Your task to perform on an android device: delete a single message in the gmail app Image 0: 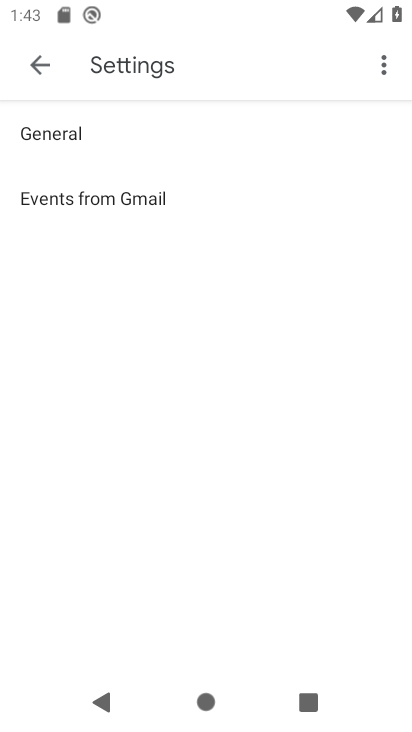
Step 0: press home button
Your task to perform on an android device: delete a single message in the gmail app Image 1: 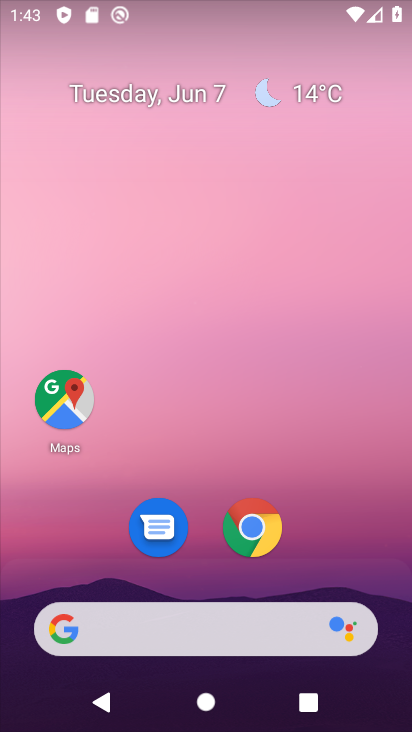
Step 1: drag from (368, 575) to (301, 268)
Your task to perform on an android device: delete a single message in the gmail app Image 2: 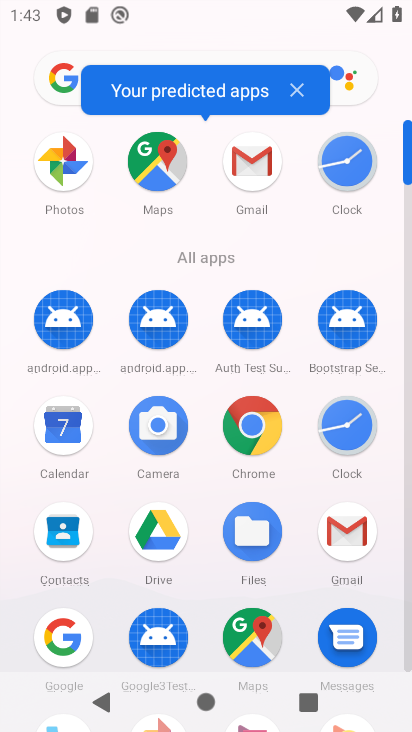
Step 2: click (257, 164)
Your task to perform on an android device: delete a single message in the gmail app Image 3: 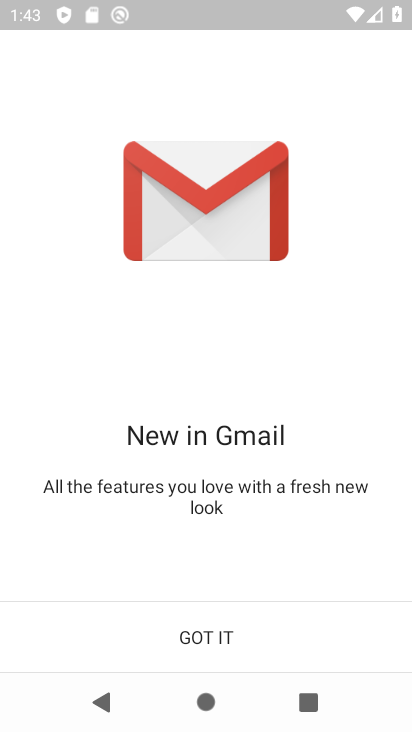
Step 3: click (202, 645)
Your task to perform on an android device: delete a single message in the gmail app Image 4: 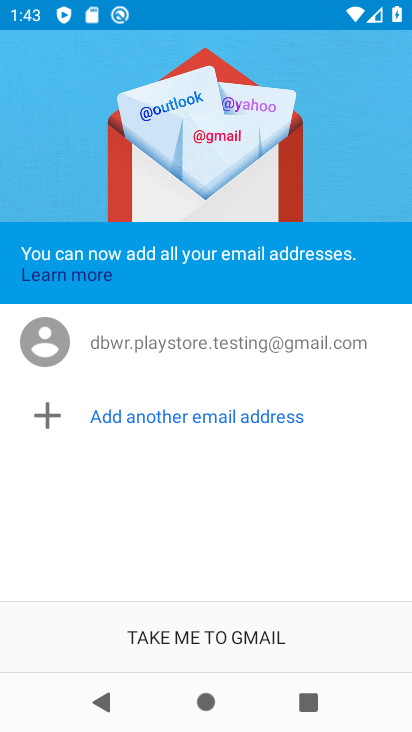
Step 4: click (202, 645)
Your task to perform on an android device: delete a single message in the gmail app Image 5: 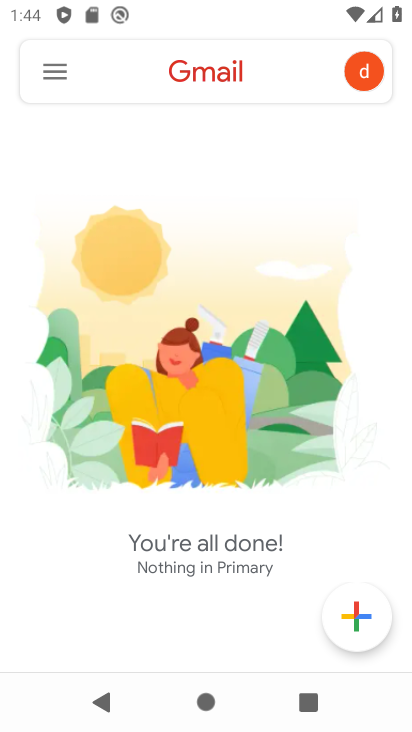
Step 5: click (48, 74)
Your task to perform on an android device: delete a single message in the gmail app Image 6: 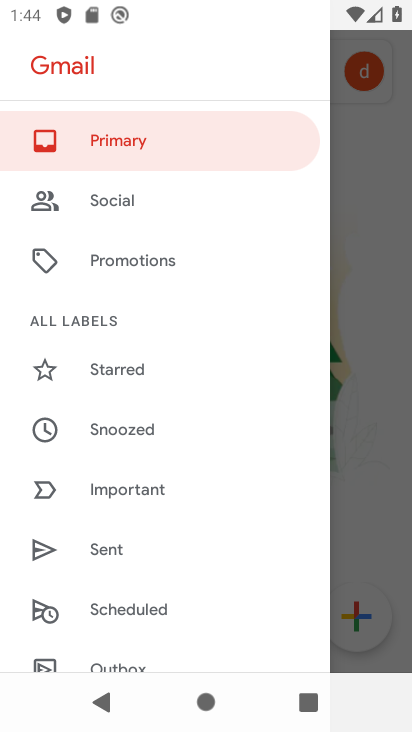
Step 6: drag from (172, 613) to (137, 196)
Your task to perform on an android device: delete a single message in the gmail app Image 7: 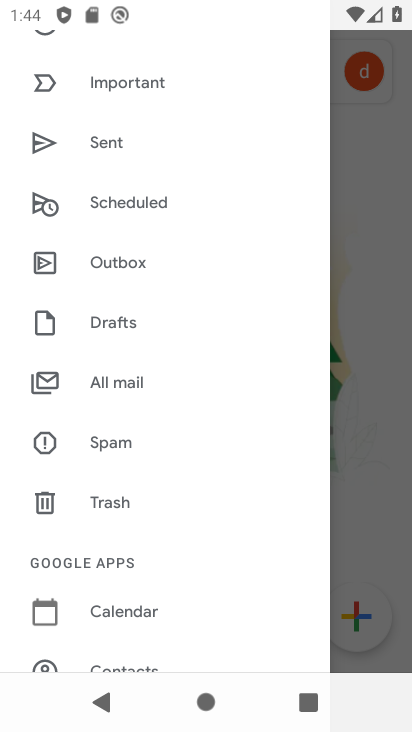
Step 7: click (168, 386)
Your task to perform on an android device: delete a single message in the gmail app Image 8: 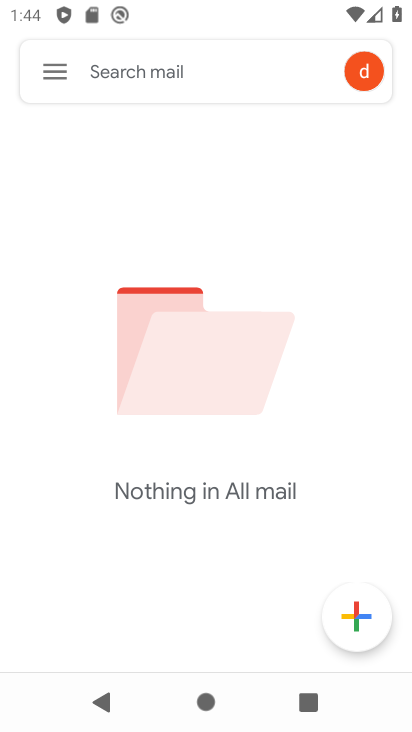
Step 8: task complete